Your task to perform on an android device: Open Google Image 0: 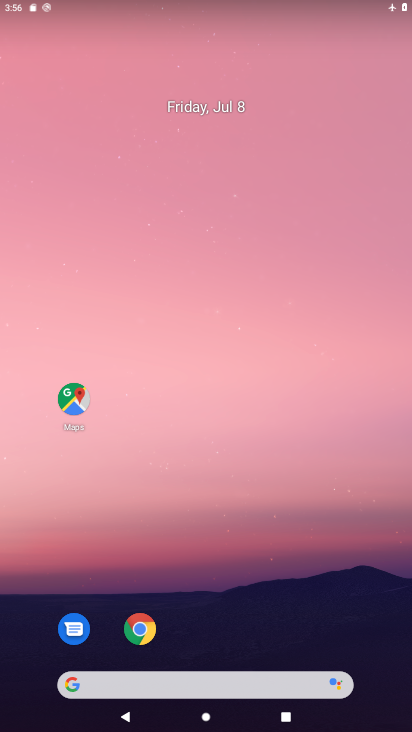
Step 0: drag from (263, 606) to (249, 406)
Your task to perform on an android device: Open Google Image 1: 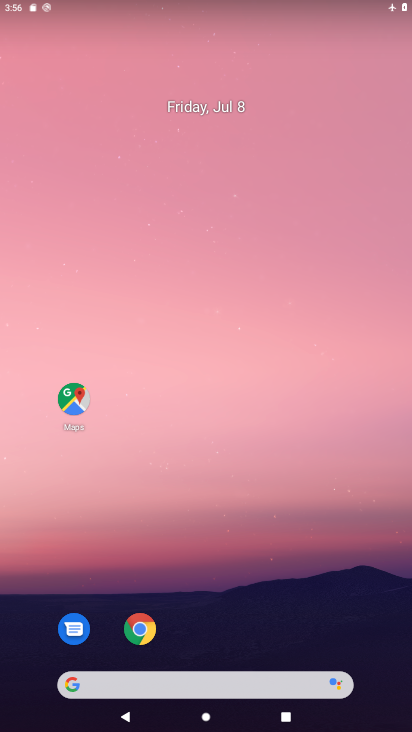
Step 1: drag from (232, 652) to (246, 242)
Your task to perform on an android device: Open Google Image 2: 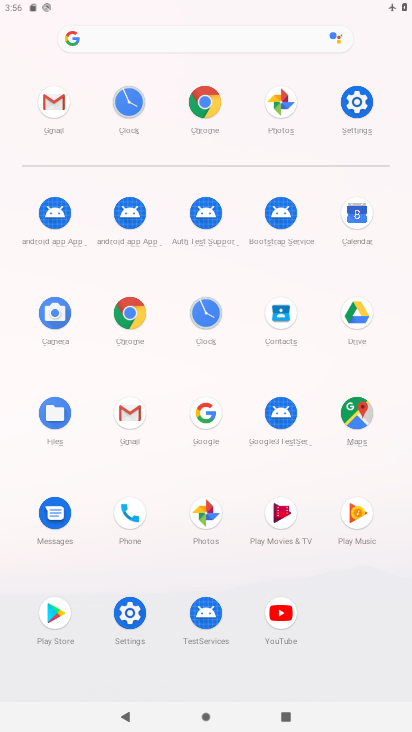
Step 2: click (202, 409)
Your task to perform on an android device: Open Google Image 3: 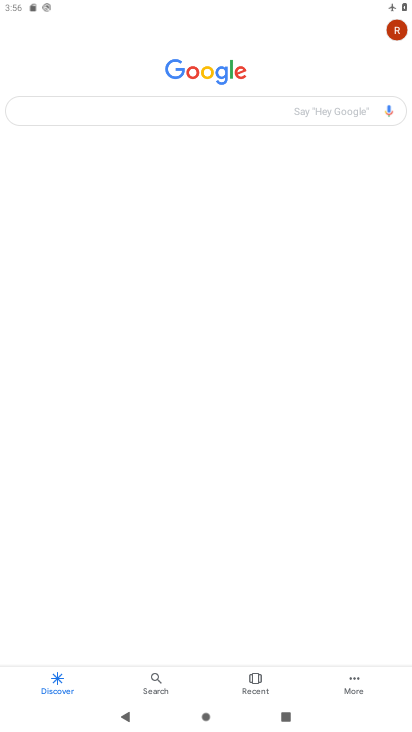
Step 3: task complete